Your task to perform on an android device: add a contact Image 0: 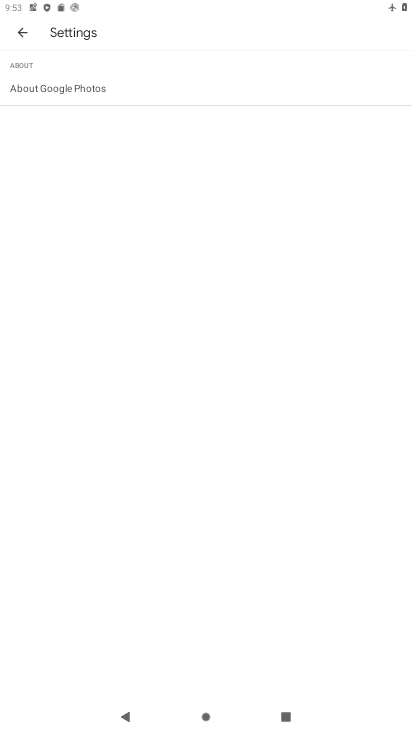
Step 0: press home button
Your task to perform on an android device: add a contact Image 1: 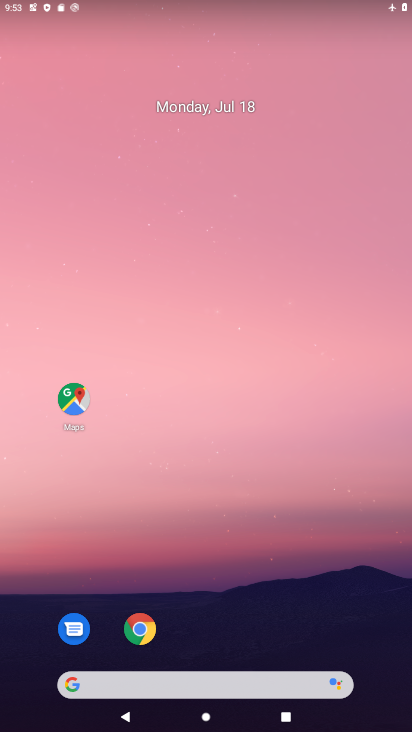
Step 1: drag from (319, 504) to (291, 32)
Your task to perform on an android device: add a contact Image 2: 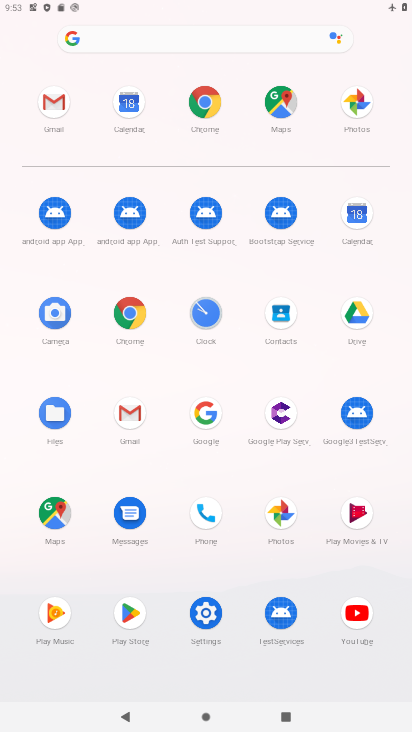
Step 2: click (290, 317)
Your task to perform on an android device: add a contact Image 3: 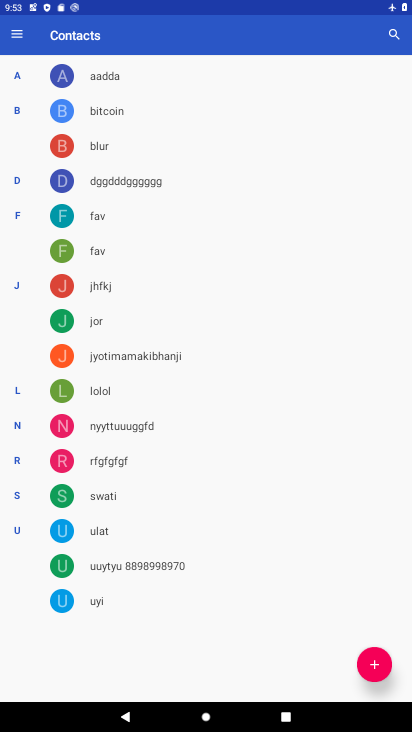
Step 3: click (381, 669)
Your task to perform on an android device: add a contact Image 4: 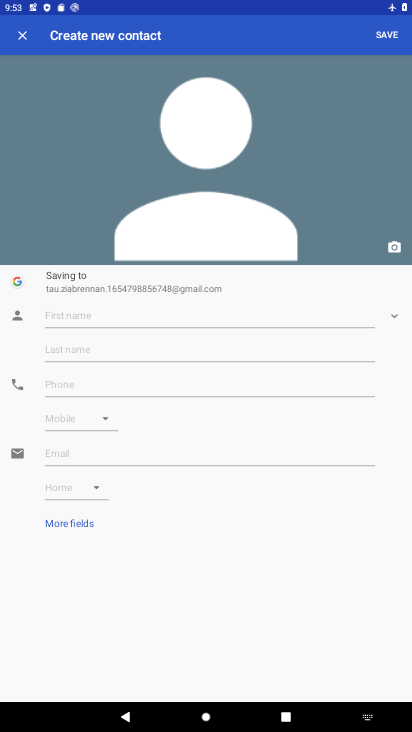
Step 4: click (145, 311)
Your task to perform on an android device: add a contact Image 5: 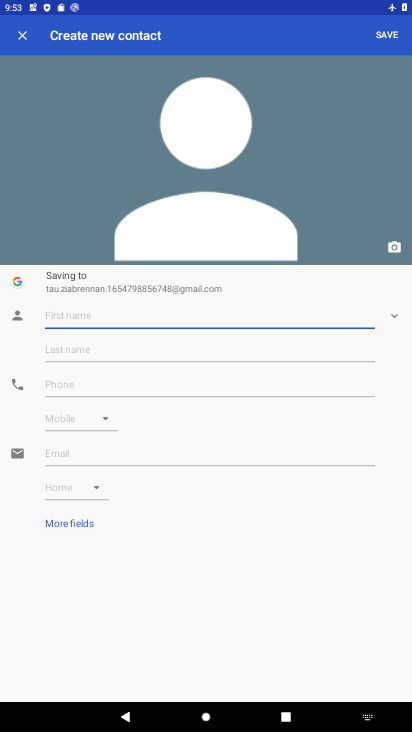
Step 5: type "raja bojh"
Your task to perform on an android device: add a contact Image 6: 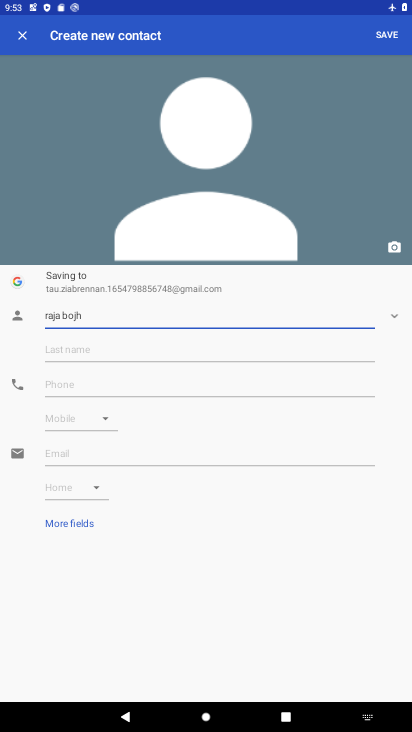
Step 6: click (382, 39)
Your task to perform on an android device: add a contact Image 7: 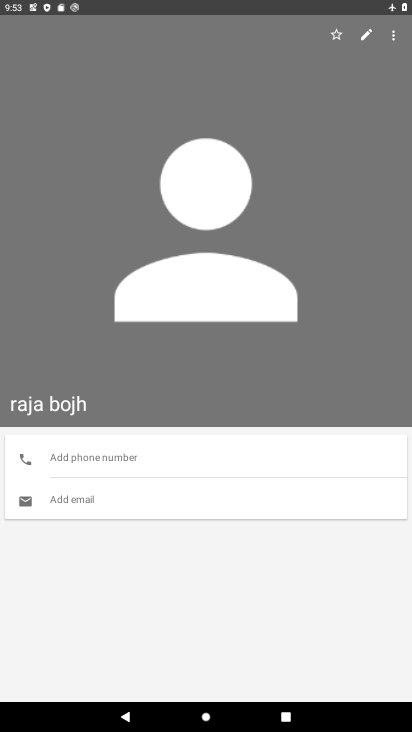
Step 7: task complete